Your task to perform on an android device: Open CNN.com Image 0: 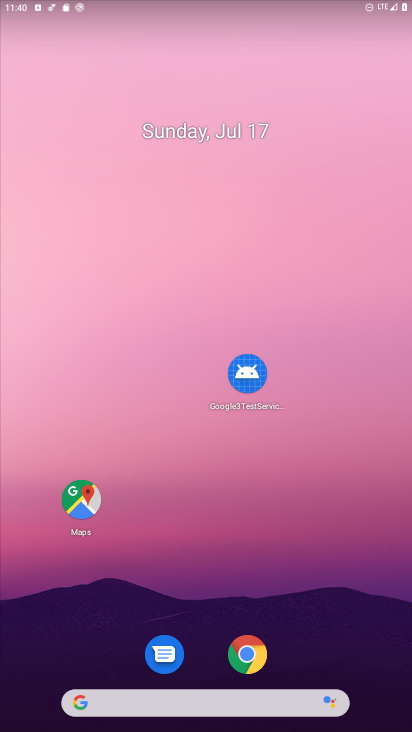
Step 0: click (251, 646)
Your task to perform on an android device: Open CNN.com Image 1: 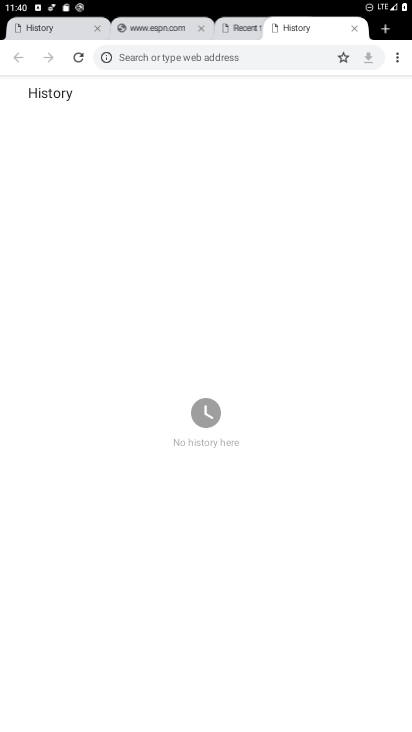
Step 1: click (379, 28)
Your task to perform on an android device: Open CNN.com Image 2: 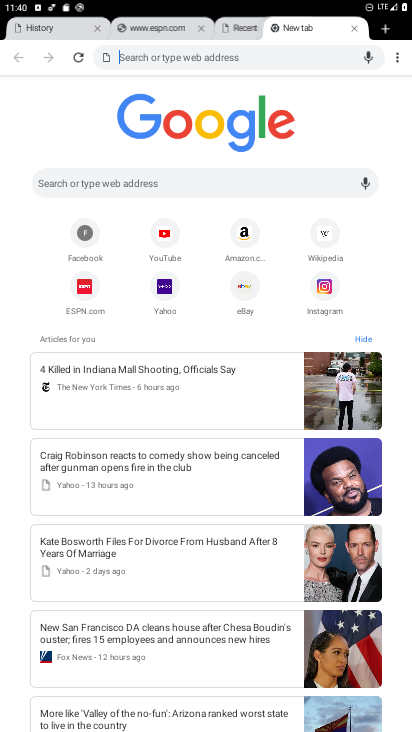
Step 2: click (176, 185)
Your task to perform on an android device: Open CNN.com Image 3: 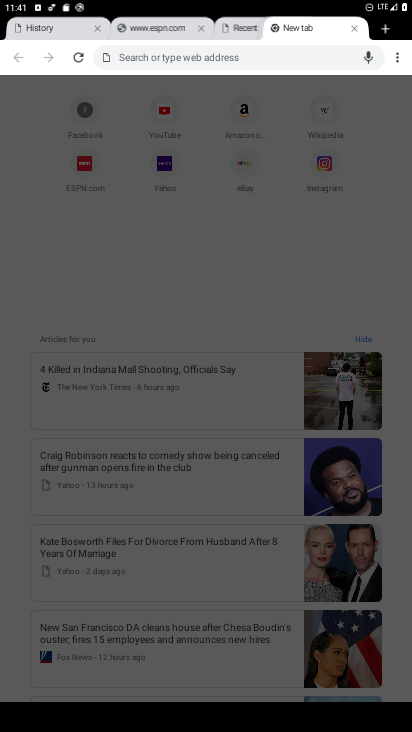
Step 3: type "CNN.com"
Your task to perform on an android device: Open CNN.com Image 4: 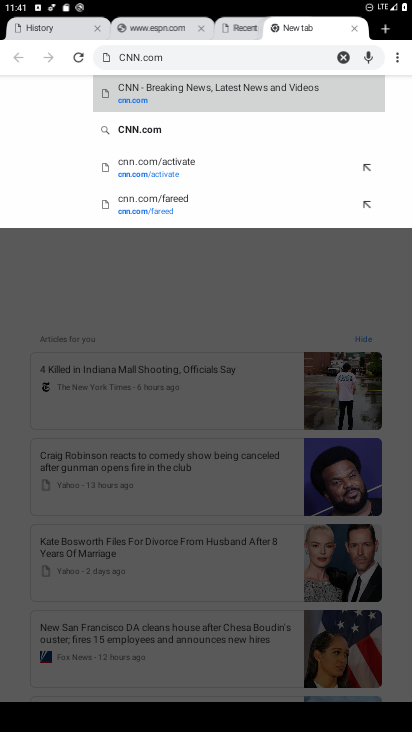
Step 4: click (168, 135)
Your task to perform on an android device: Open CNN.com Image 5: 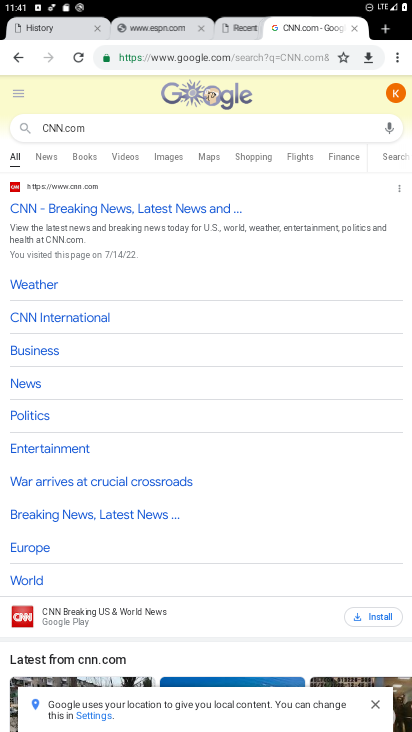
Step 5: click (154, 208)
Your task to perform on an android device: Open CNN.com Image 6: 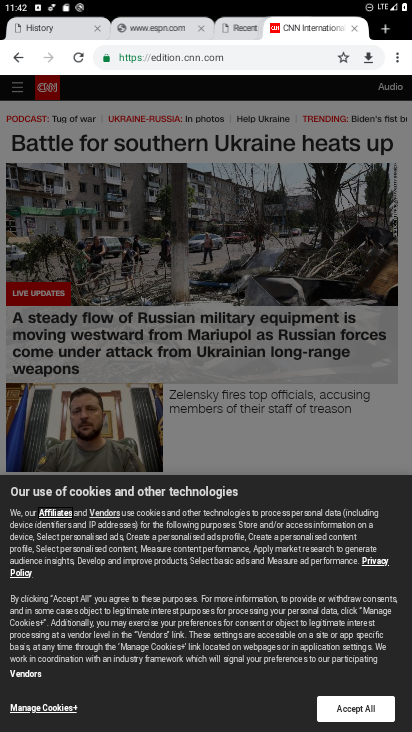
Step 6: task complete